Your task to perform on an android device: see creations saved in the google photos Image 0: 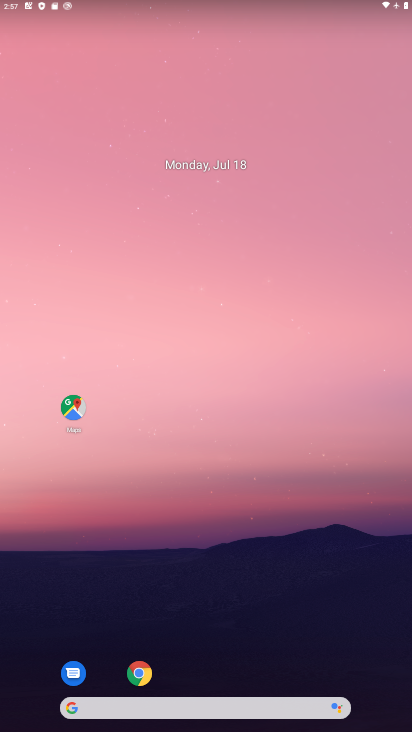
Step 0: drag from (306, 676) to (280, 407)
Your task to perform on an android device: see creations saved in the google photos Image 1: 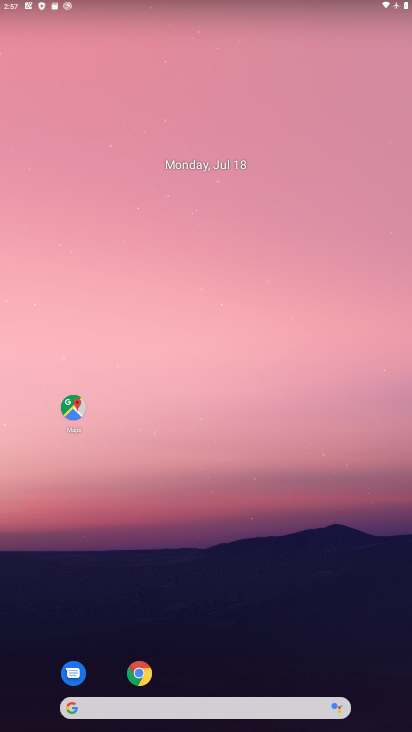
Step 1: drag from (188, 663) to (278, 242)
Your task to perform on an android device: see creations saved in the google photos Image 2: 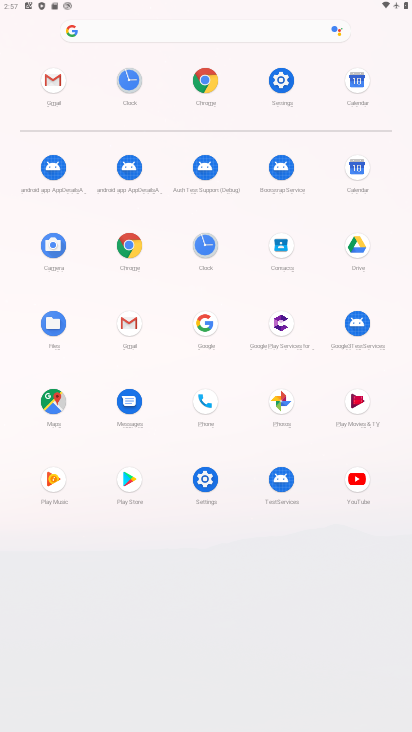
Step 2: click (275, 410)
Your task to perform on an android device: see creations saved in the google photos Image 3: 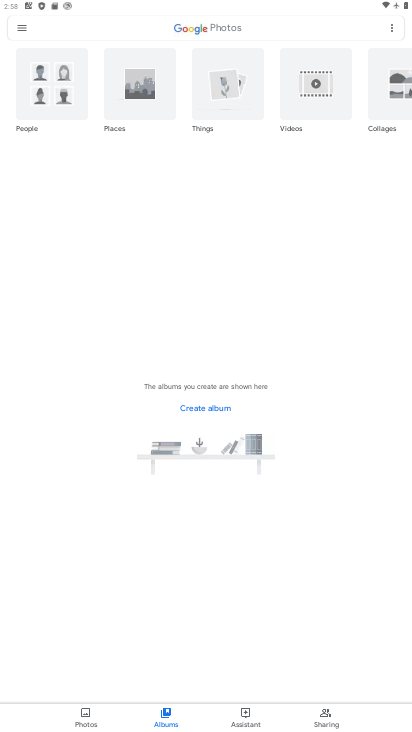
Step 3: task complete